Your task to perform on an android device: What's a good restaurant in Sacramento? Image 0: 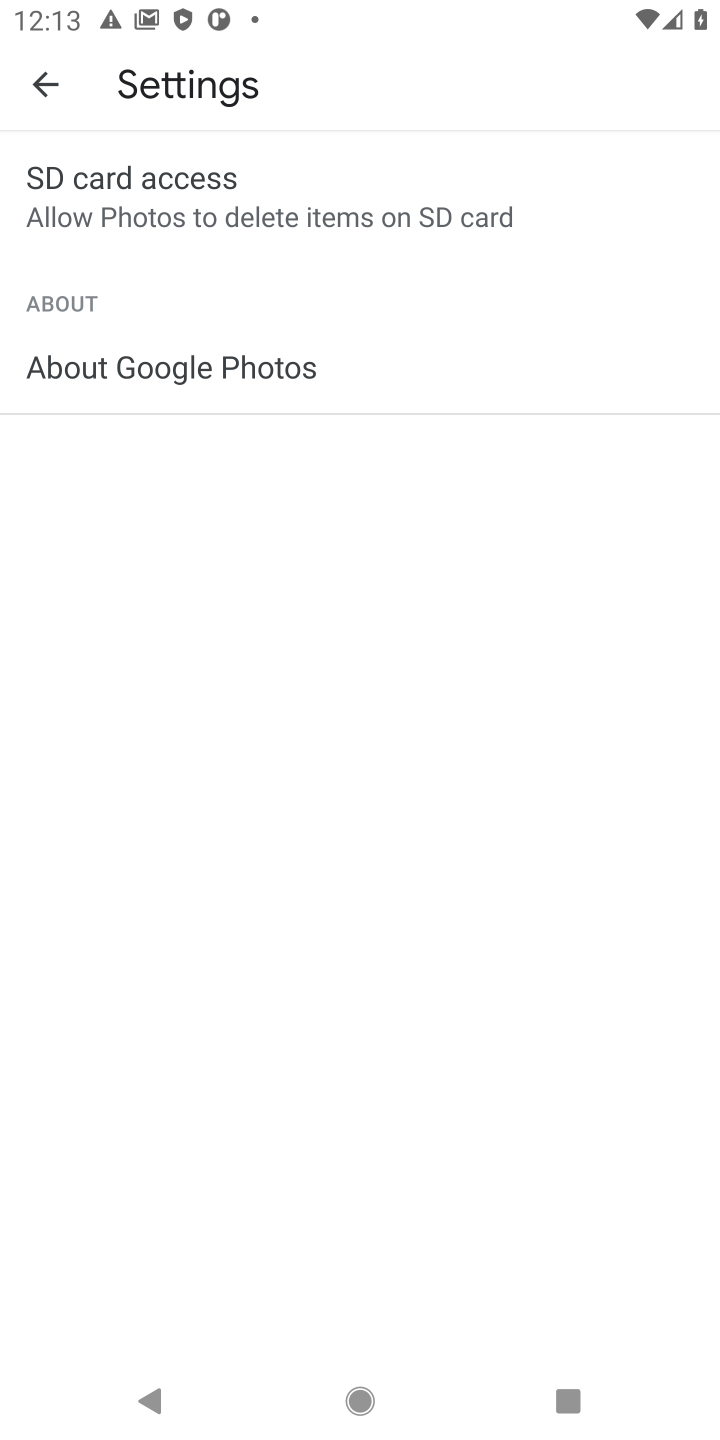
Step 0: press home button
Your task to perform on an android device: What's a good restaurant in Sacramento? Image 1: 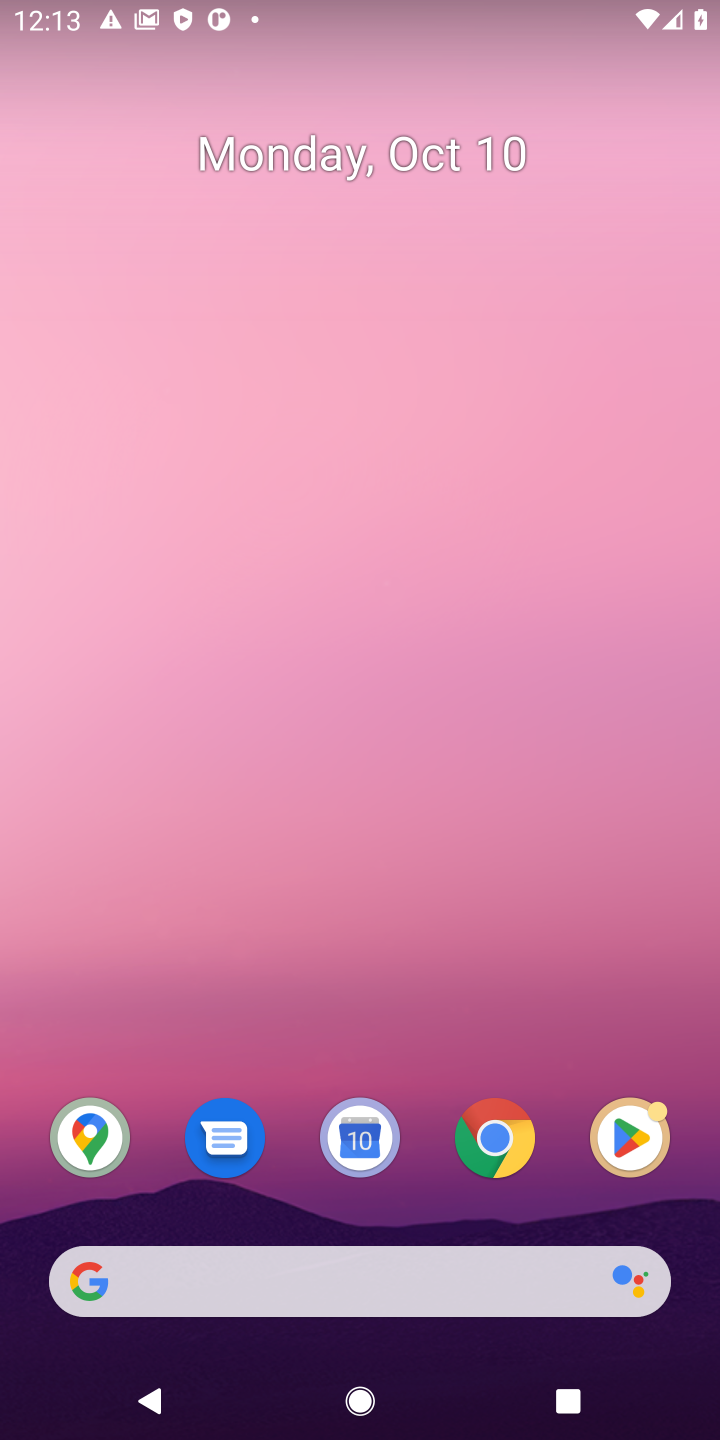
Step 1: click (485, 1136)
Your task to perform on an android device: What's a good restaurant in Sacramento? Image 2: 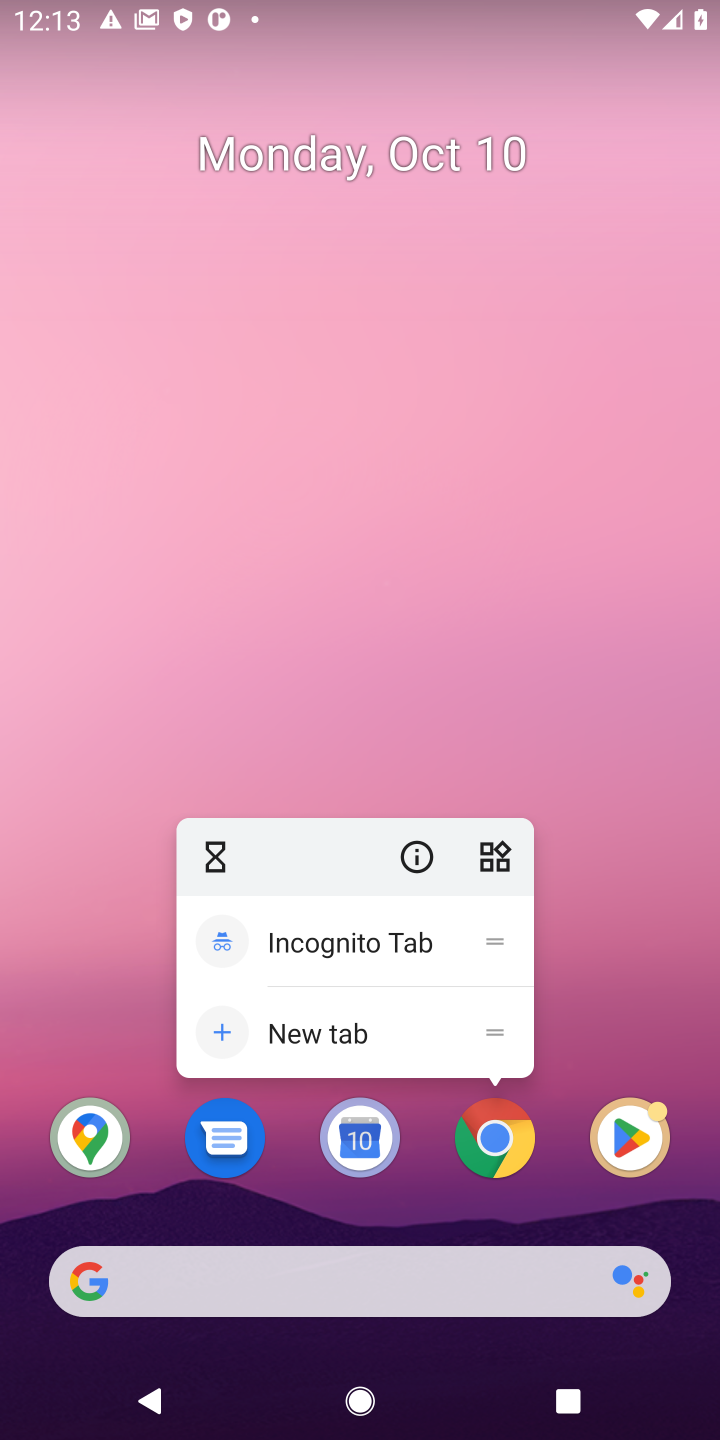
Step 2: click (485, 1136)
Your task to perform on an android device: What's a good restaurant in Sacramento? Image 3: 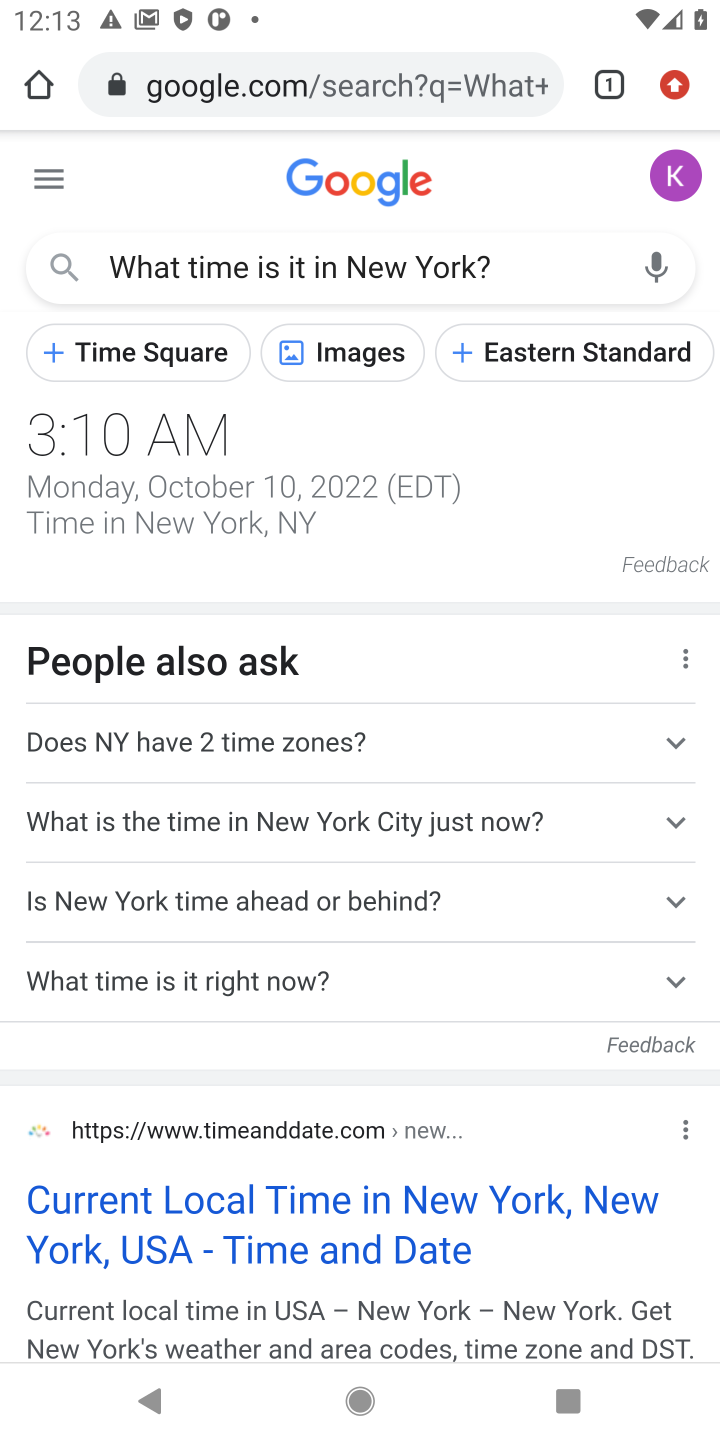
Step 3: click (538, 268)
Your task to perform on an android device: What's a good restaurant in Sacramento? Image 4: 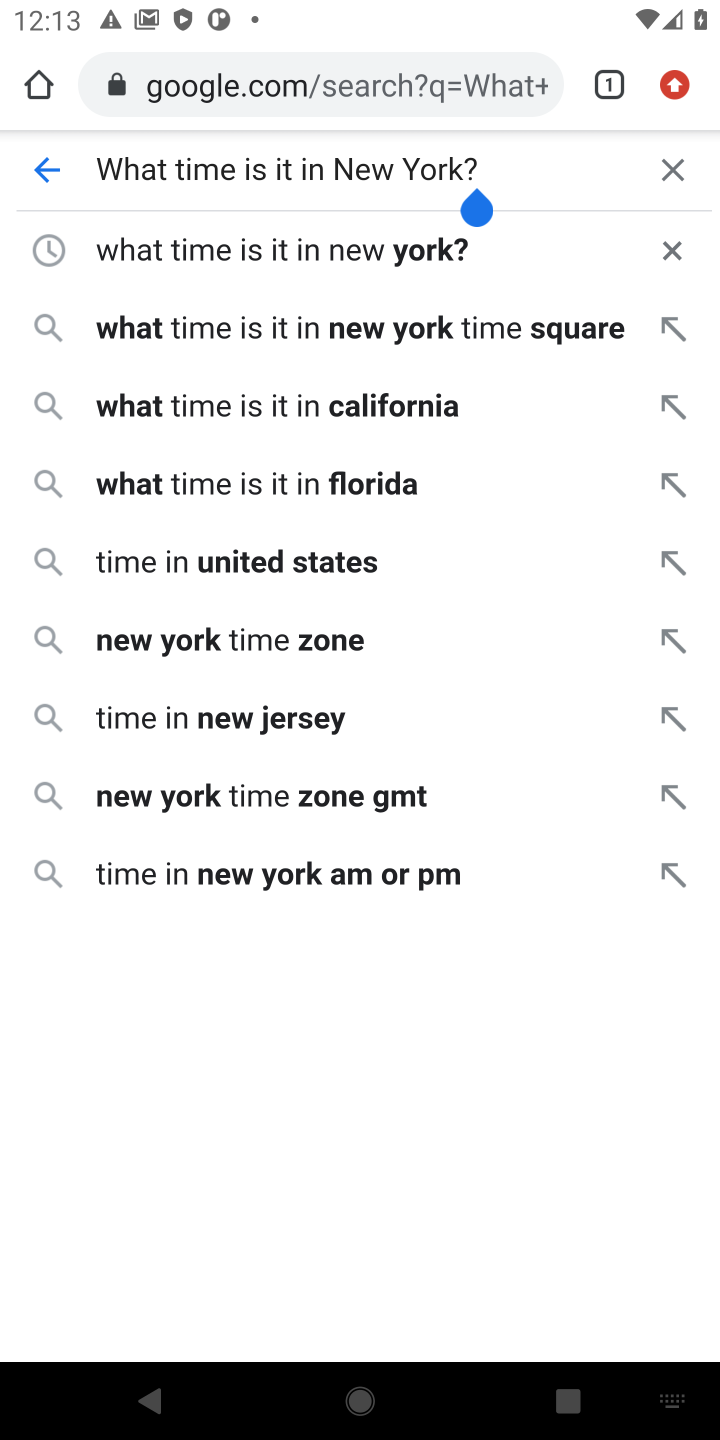
Step 4: click (673, 166)
Your task to perform on an android device: What's a good restaurant in Sacramento? Image 5: 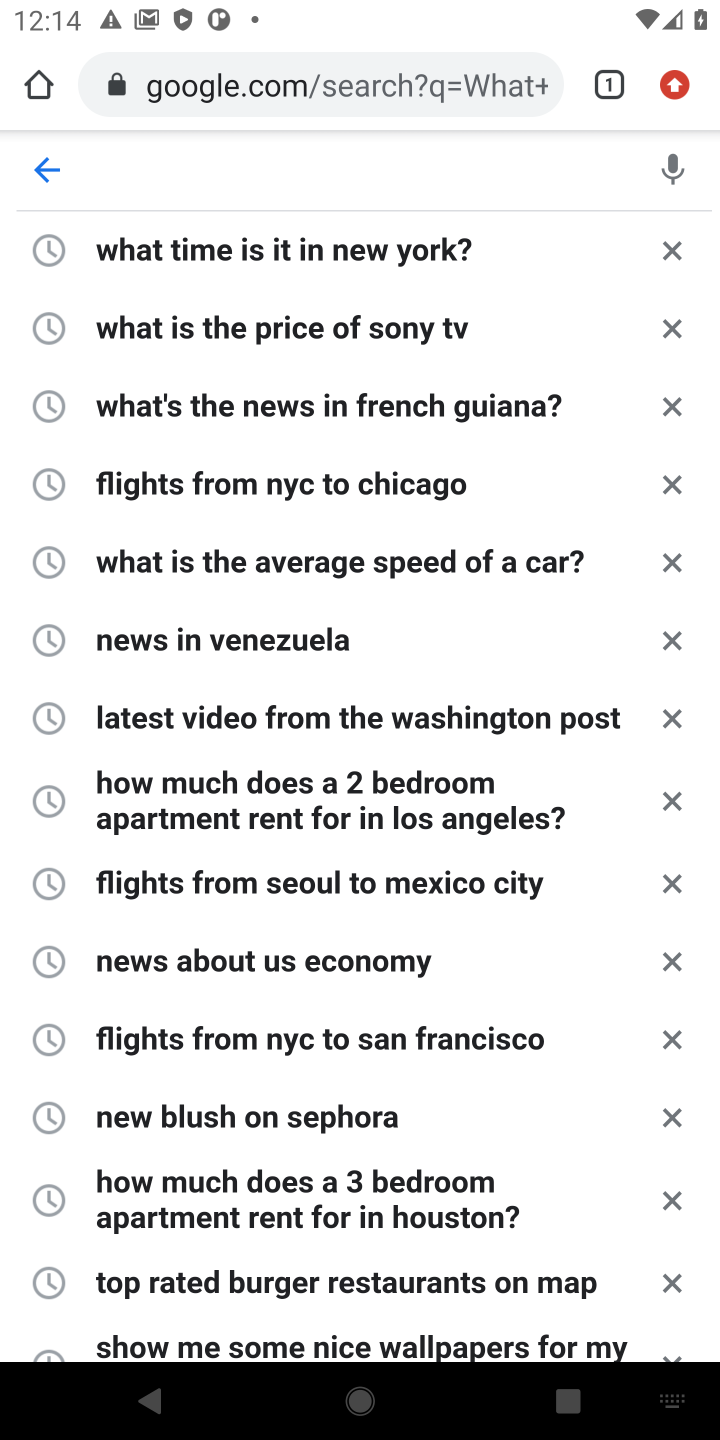
Step 5: type "What's a good restaurant in Sacramento?"
Your task to perform on an android device: What's a good restaurant in Sacramento? Image 6: 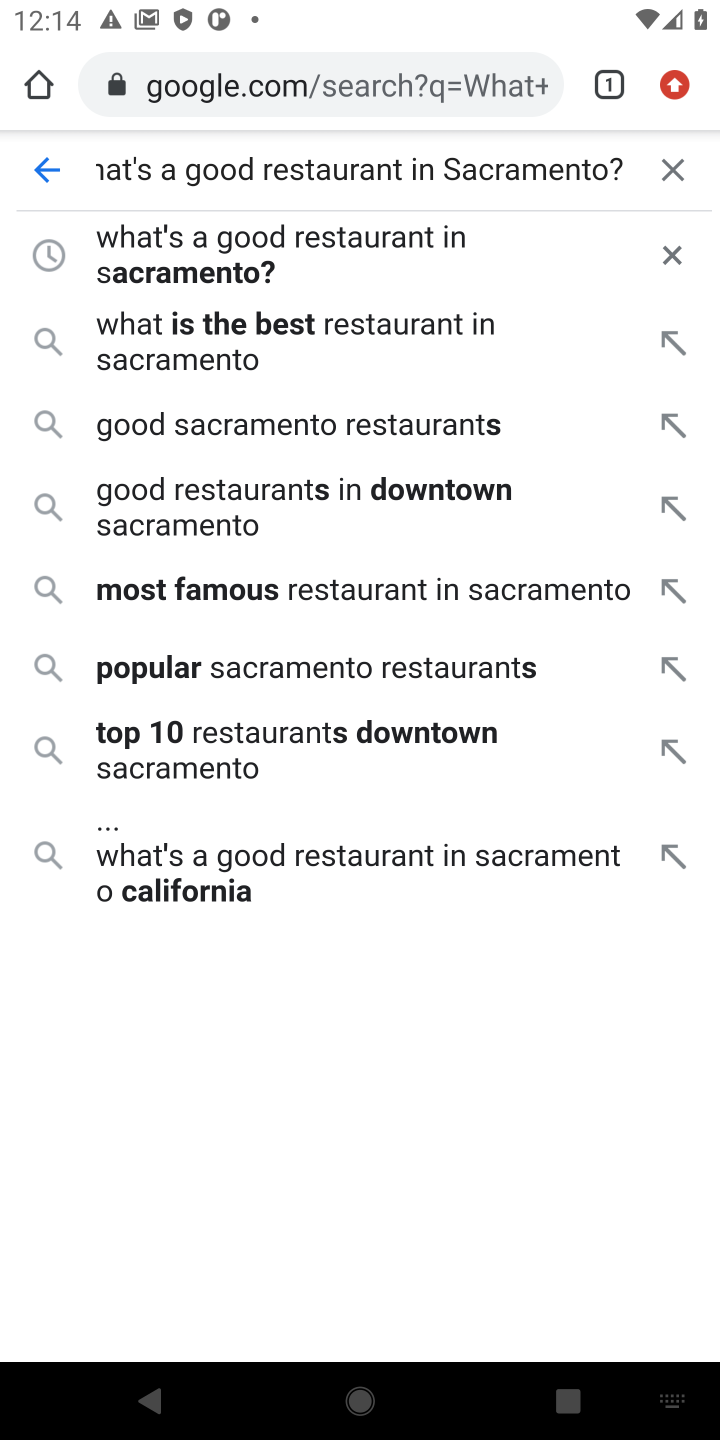
Step 6: click (349, 263)
Your task to perform on an android device: What's a good restaurant in Sacramento? Image 7: 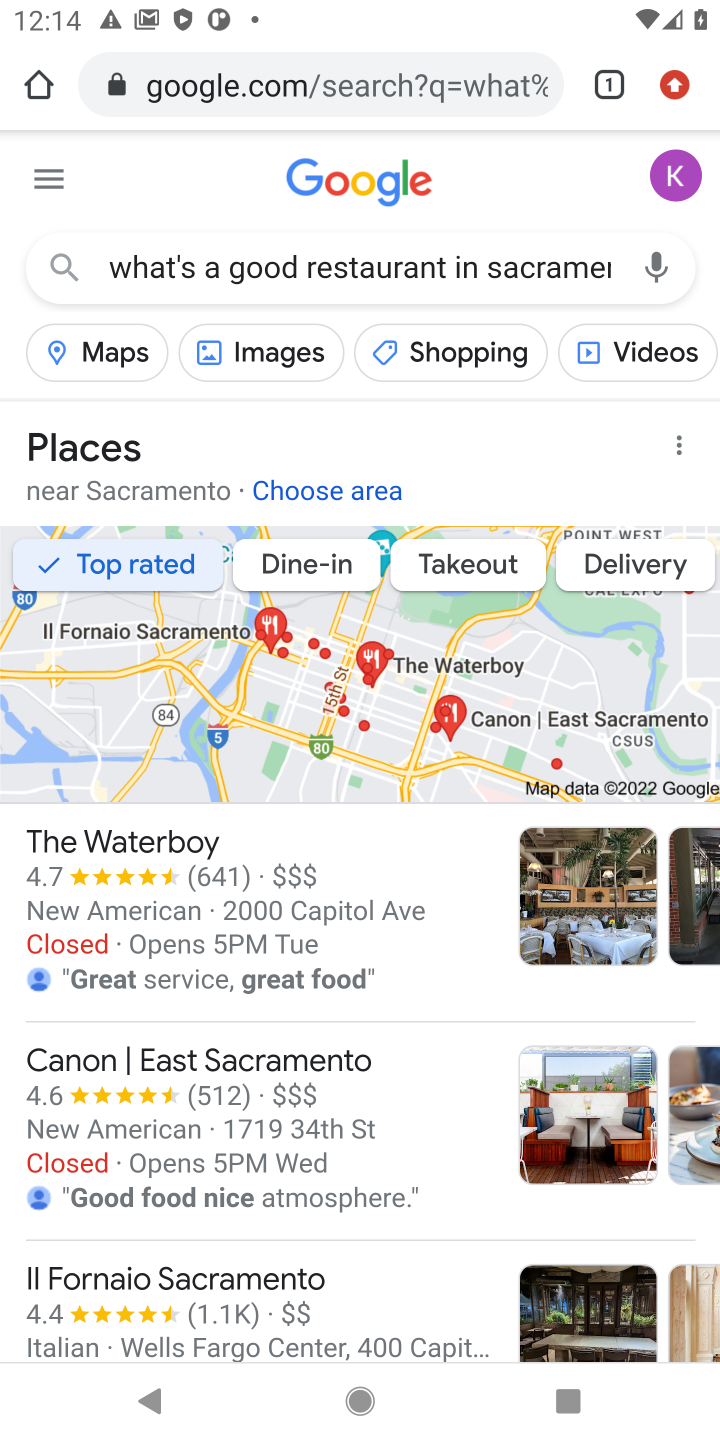
Step 7: task complete